Your task to perform on an android device: Open calendar and show me the third week of next month Image 0: 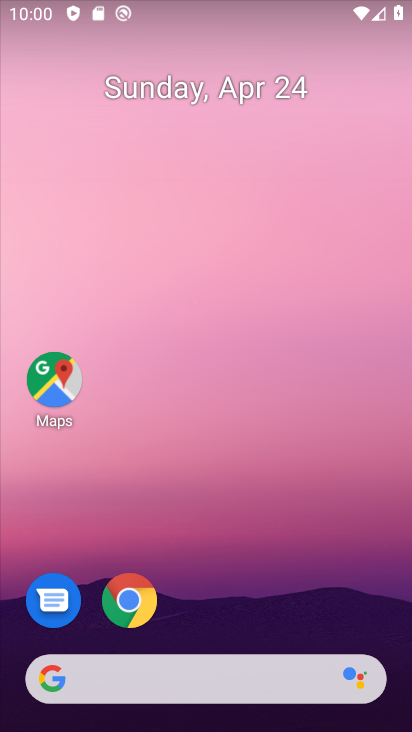
Step 0: drag from (226, 608) to (194, 53)
Your task to perform on an android device: Open calendar and show me the third week of next month Image 1: 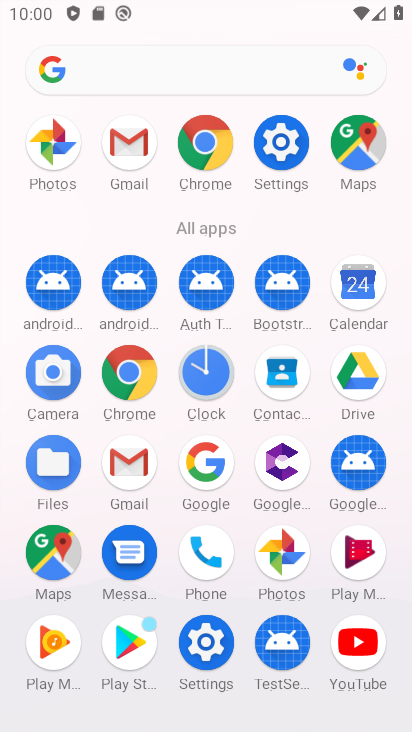
Step 1: click (345, 291)
Your task to perform on an android device: Open calendar and show me the third week of next month Image 2: 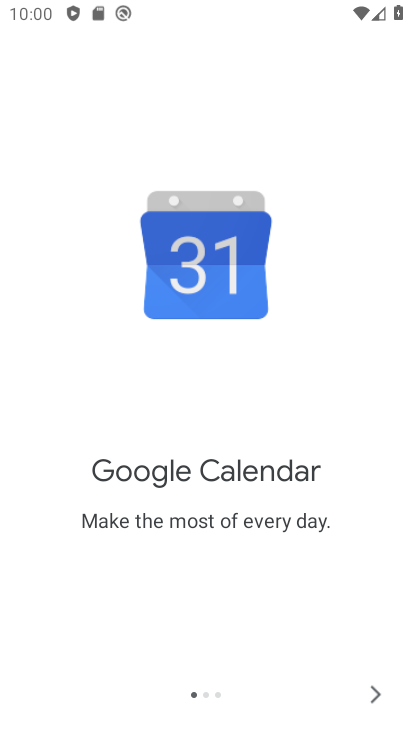
Step 2: click (376, 695)
Your task to perform on an android device: Open calendar and show me the third week of next month Image 3: 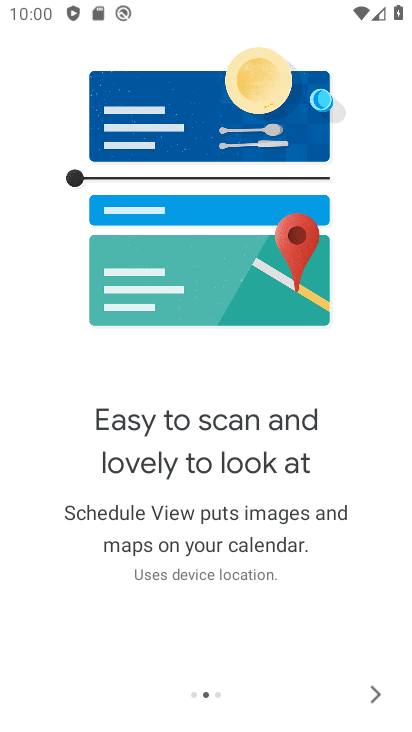
Step 3: click (376, 695)
Your task to perform on an android device: Open calendar and show me the third week of next month Image 4: 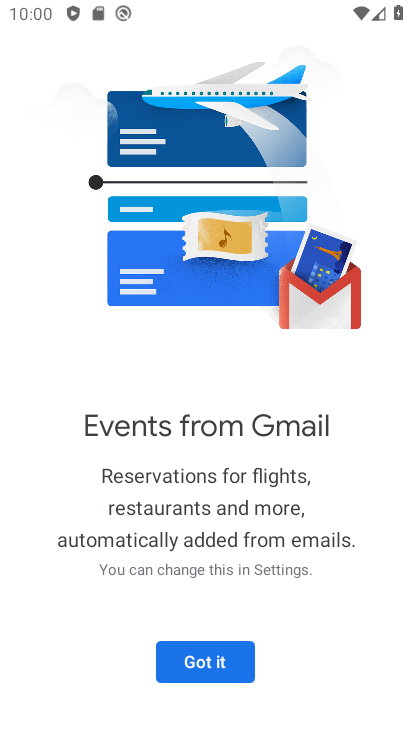
Step 4: click (201, 662)
Your task to perform on an android device: Open calendar and show me the third week of next month Image 5: 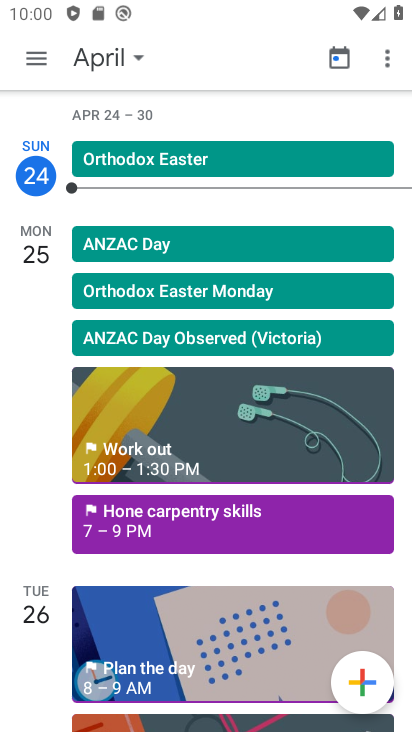
Step 5: click (35, 60)
Your task to perform on an android device: Open calendar and show me the third week of next month Image 6: 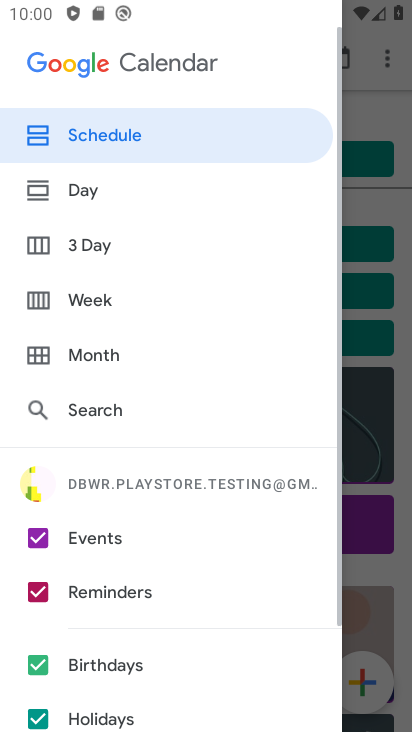
Step 6: click (80, 297)
Your task to perform on an android device: Open calendar and show me the third week of next month Image 7: 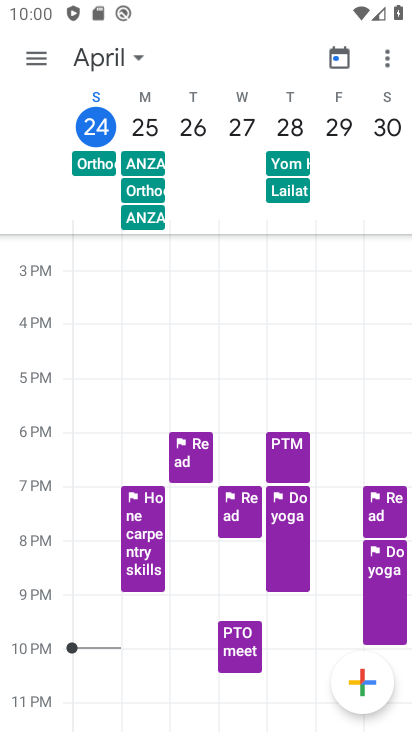
Step 7: click (140, 59)
Your task to perform on an android device: Open calendar and show me the third week of next month Image 8: 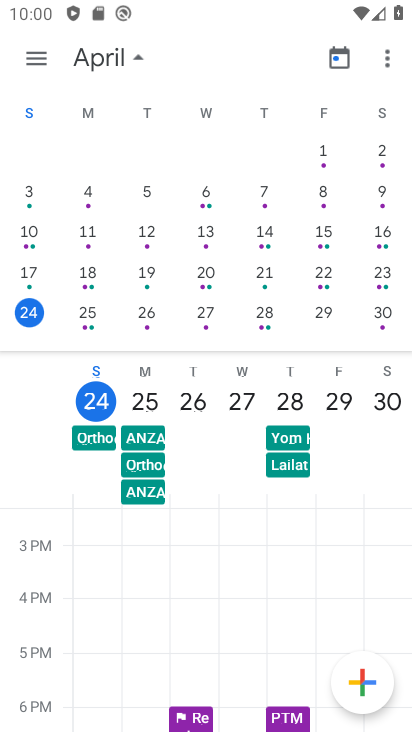
Step 8: click (40, 254)
Your task to perform on an android device: Open calendar and show me the third week of next month Image 9: 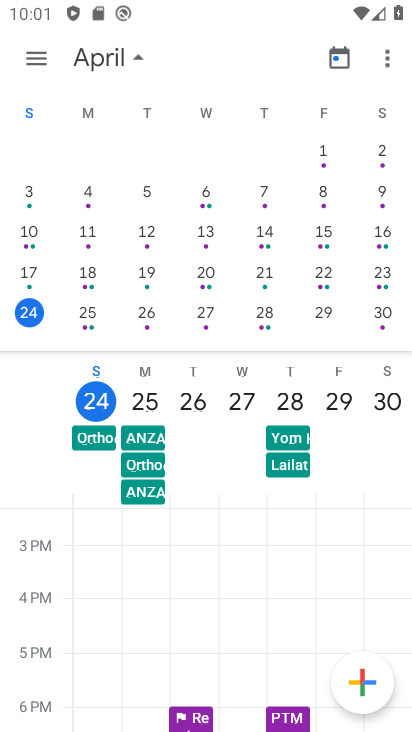
Step 9: drag from (336, 246) to (87, 226)
Your task to perform on an android device: Open calendar and show me the third week of next month Image 10: 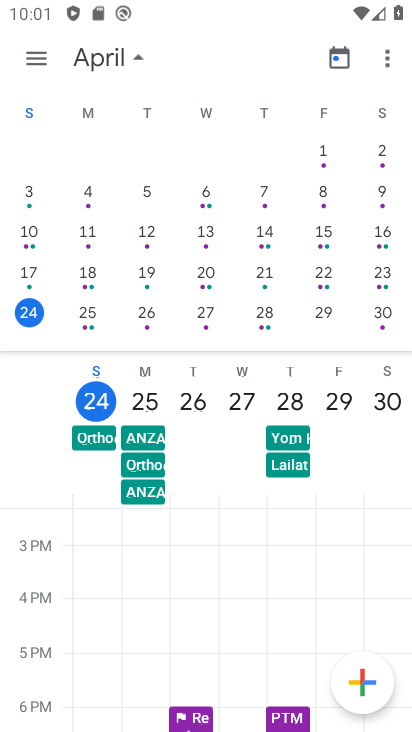
Step 10: drag from (365, 248) to (0, 222)
Your task to perform on an android device: Open calendar and show me the third week of next month Image 11: 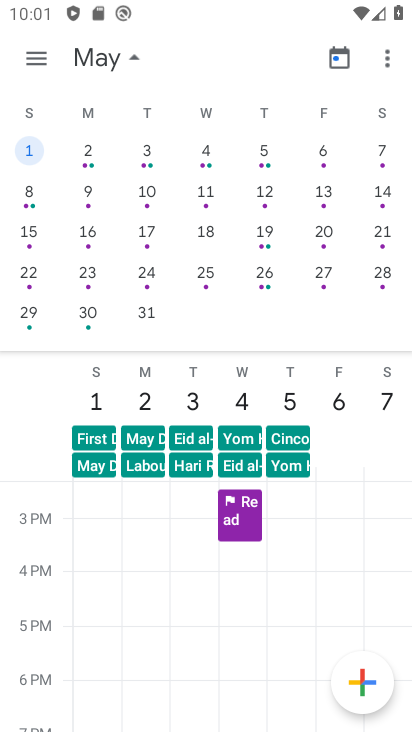
Step 11: click (99, 51)
Your task to perform on an android device: Open calendar and show me the third week of next month Image 12: 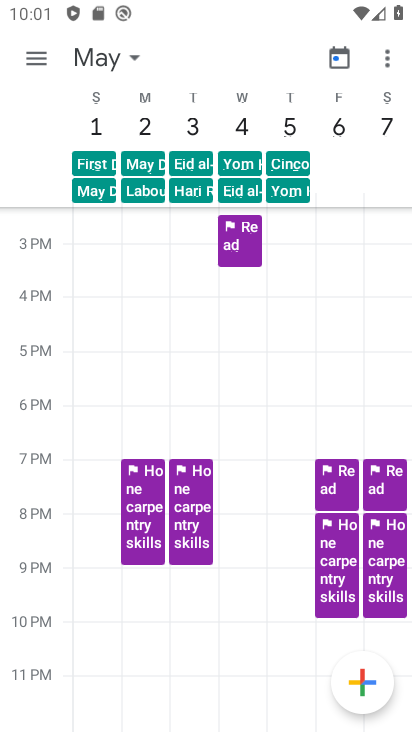
Step 12: click (131, 59)
Your task to perform on an android device: Open calendar and show me the third week of next month Image 13: 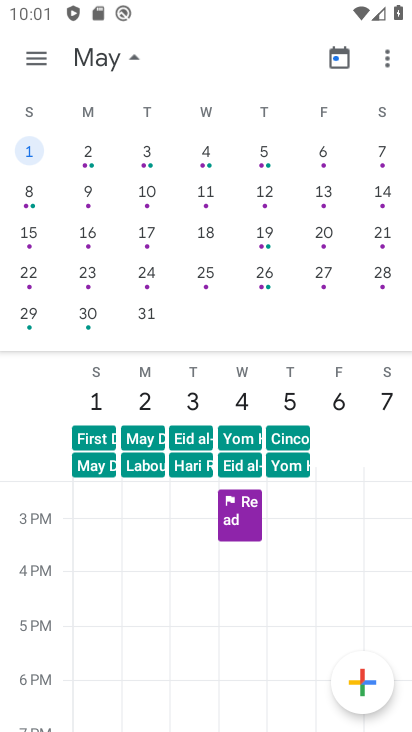
Step 13: click (140, 223)
Your task to perform on an android device: Open calendar and show me the third week of next month Image 14: 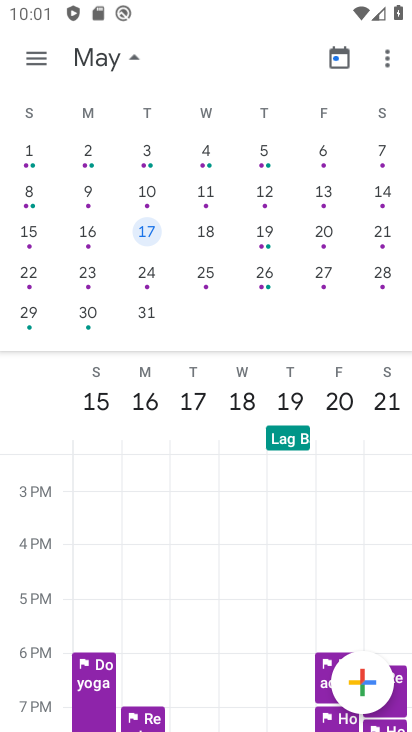
Step 14: task complete